Your task to perform on an android device: delete browsing data in the chrome app Image 0: 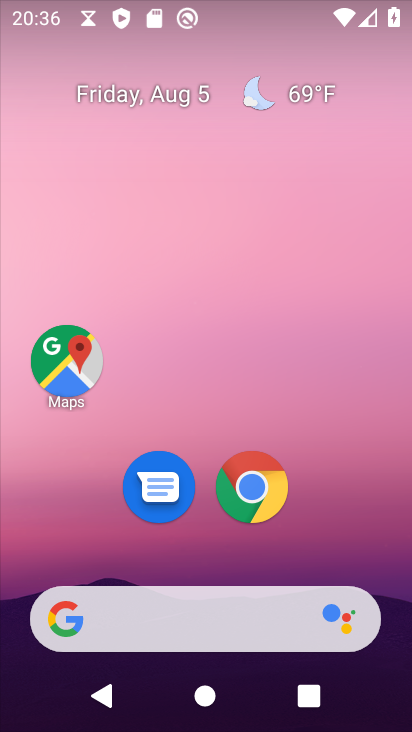
Step 0: click (252, 496)
Your task to perform on an android device: delete browsing data in the chrome app Image 1: 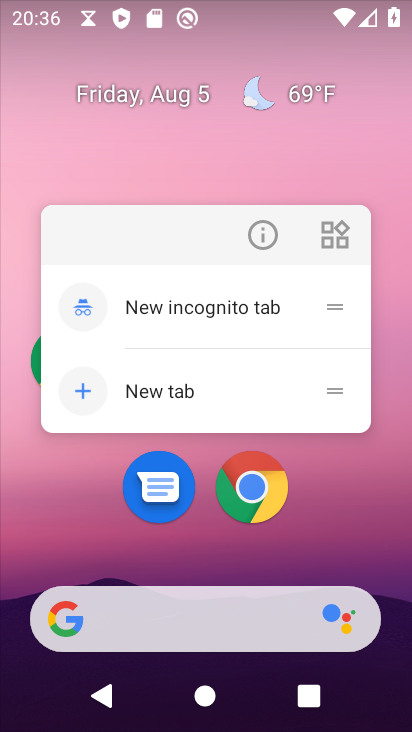
Step 1: click (252, 496)
Your task to perform on an android device: delete browsing data in the chrome app Image 2: 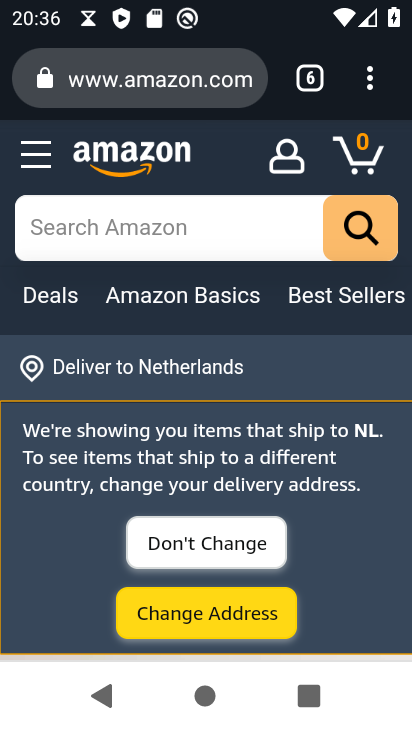
Step 2: drag from (365, 79) to (182, 538)
Your task to perform on an android device: delete browsing data in the chrome app Image 3: 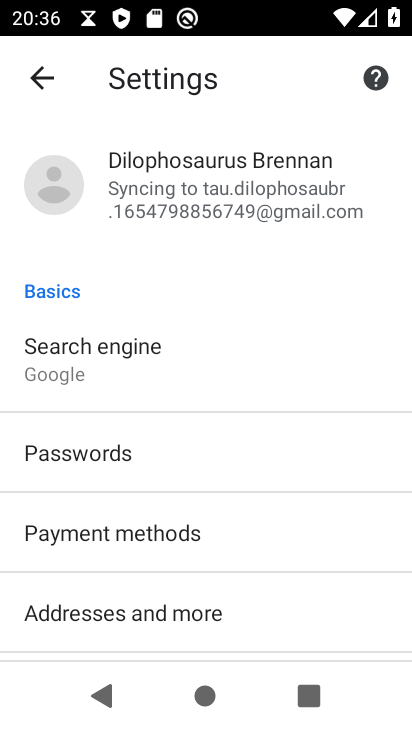
Step 3: drag from (237, 608) to (357, 193)
Your task to perform on an android device: delete browsing data in the chrome app Image 4: 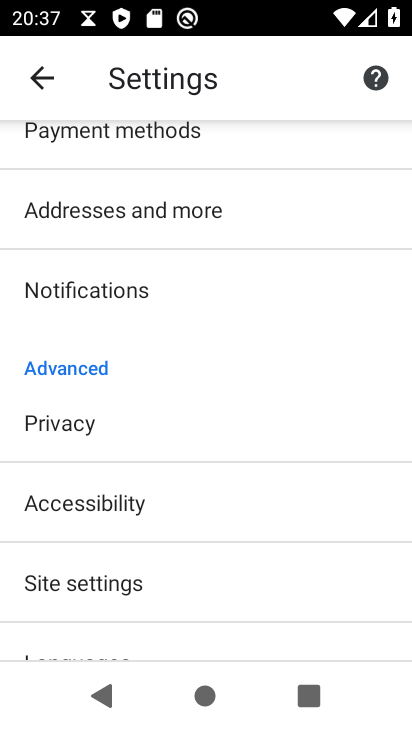
Step 4: click (74, 414)
Your task to perform on an android device: delete browsing data in the chrome app Image 5: 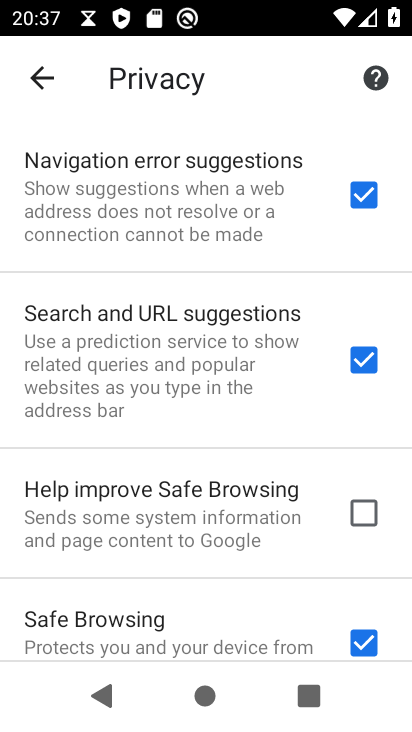
Step 5: drag from (243, 565) to (284, 110)
Your task to perform on an android device: delete browsing data in the chrome app Image 6: 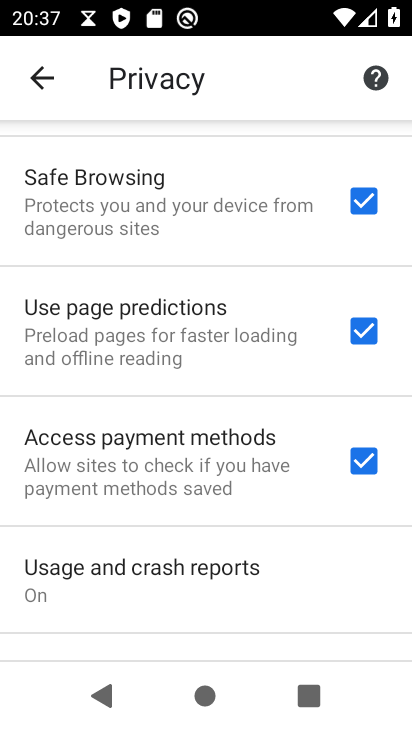
Step 6: drag from (170, 593) to (264, 199)
Your task to perform on an android device: delete browsing data in the chrome app Image 7: 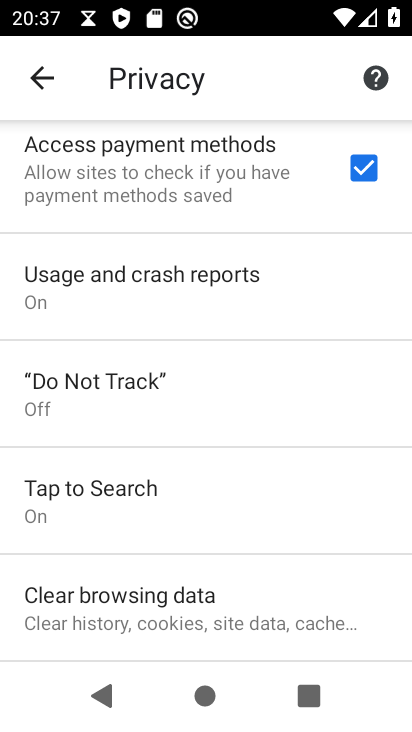
Step 7: click (175, 597)
Your task to perform on an android device: delete browsing data in the chrome app Image 8: 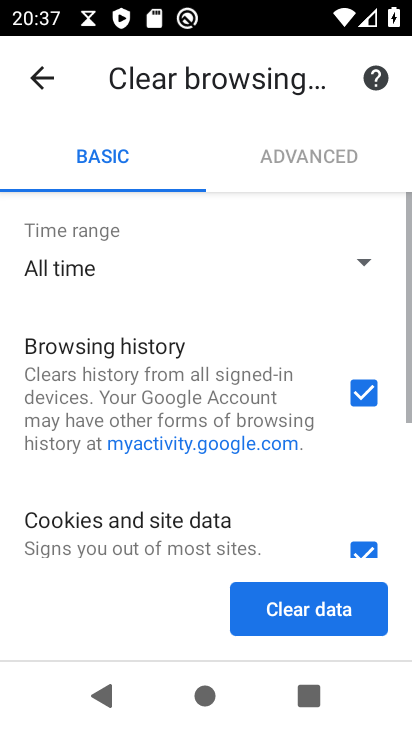
Step 8: drag from (252, 479) to (354, 132)
Your task to perform on an android device: delete browsing data in the chrome app Image 9: 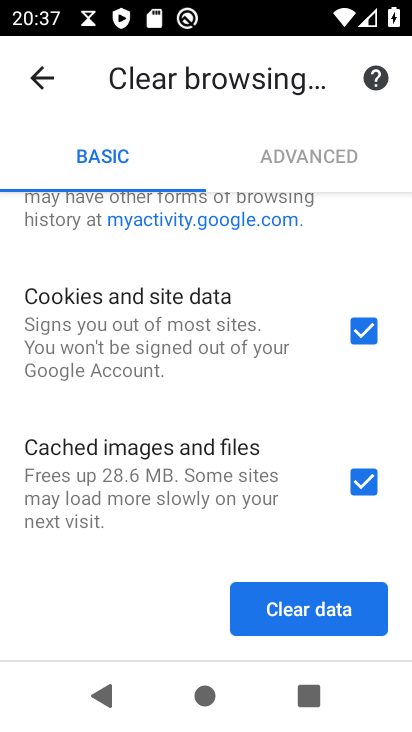
Step 9: click (301, 616)
Your task to perform on an android device: delete browsing data in the chrome app Image 10: 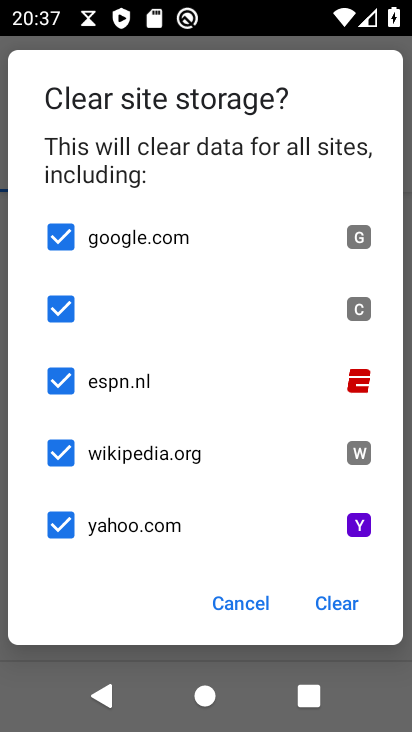
Step 10: click (246, 601)
Your task to perform on an android device: delete browsing data in the chrome app Image 11: 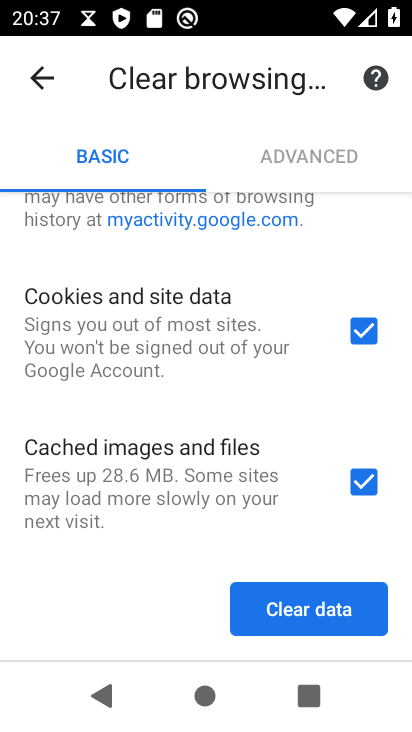
Step 11: click (325, 619)
Your task to perform on an android device: delete browsing data in the chrome app Image 12: 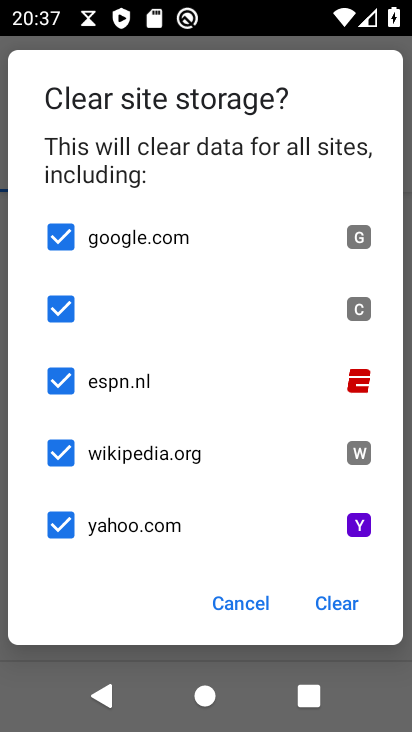
Step 12: click (321, 597)
Your task to perform on an android device: delete browsing data in the chrome app Image 13: 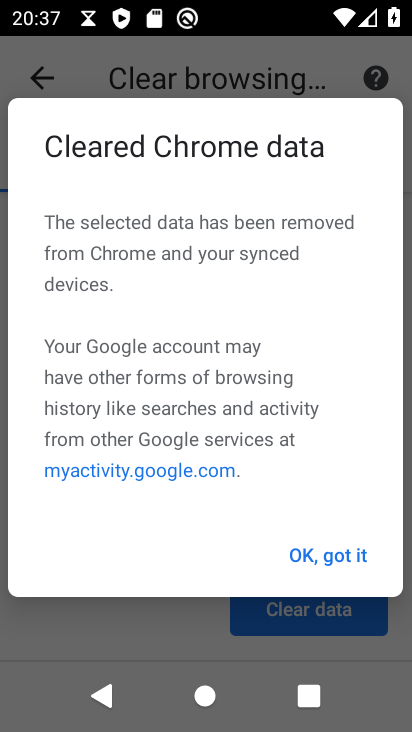
Step 13: click (347, 559)
Your task to perform on an android device: delete browsing data in the chrome app Image 14: 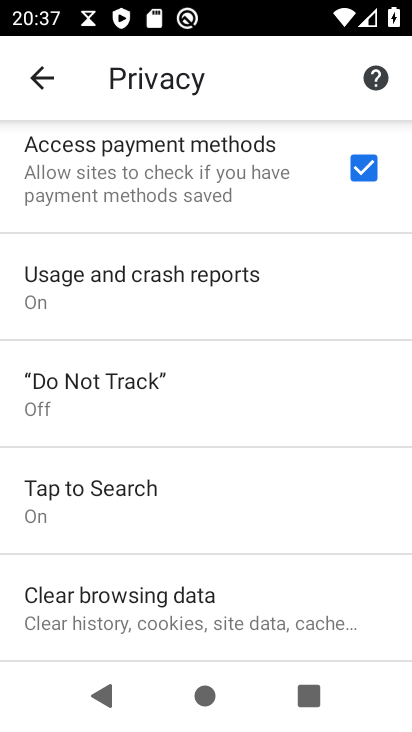
Step 14: task complete